Your task to perform on an android device: Show the shopping cart on ebay. Search for energizer triple a on ebay, select the first entry, add it to the cart, then select checkout. Image 0: 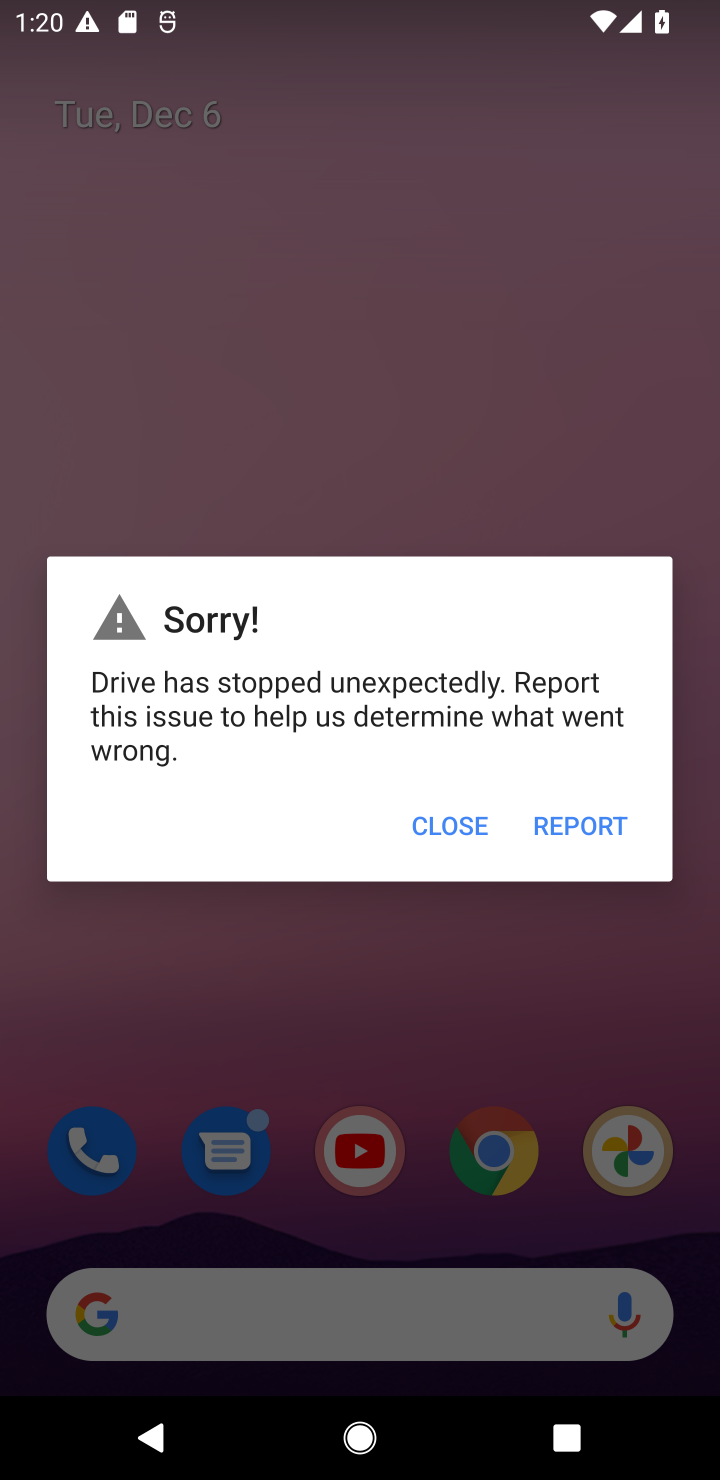
Step 0: press home button
Your task to perform on an android device: Show the shopping cart on ebay. Search for energizer triple a on ebay, select the first entry, add it to the cart, then select checkout. Image 1: 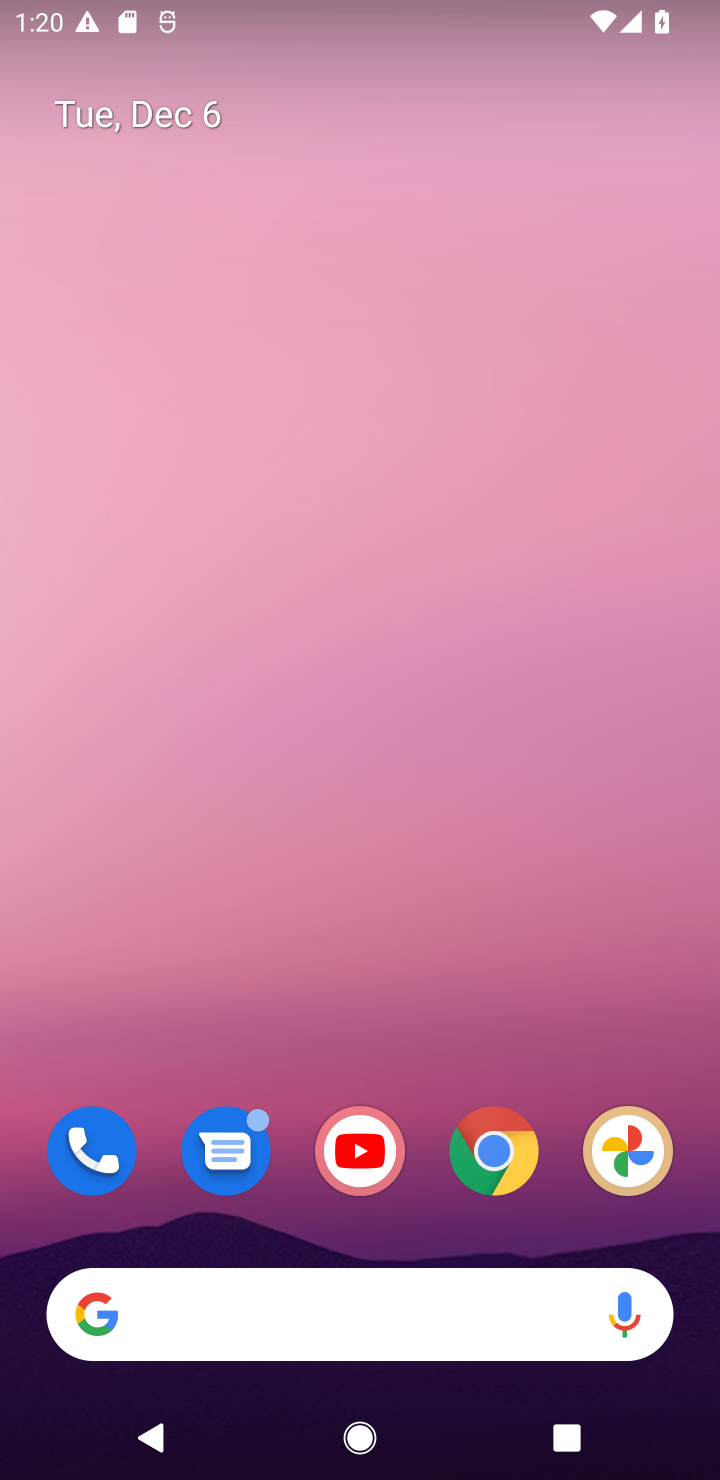
Step 1: click (489, 1155)
Your task to perform on an android device: Show the shopping cart on ebay. Search for energizer triple a on ebay, select the first entry, add it to the cart, then select checkout. Image 2: 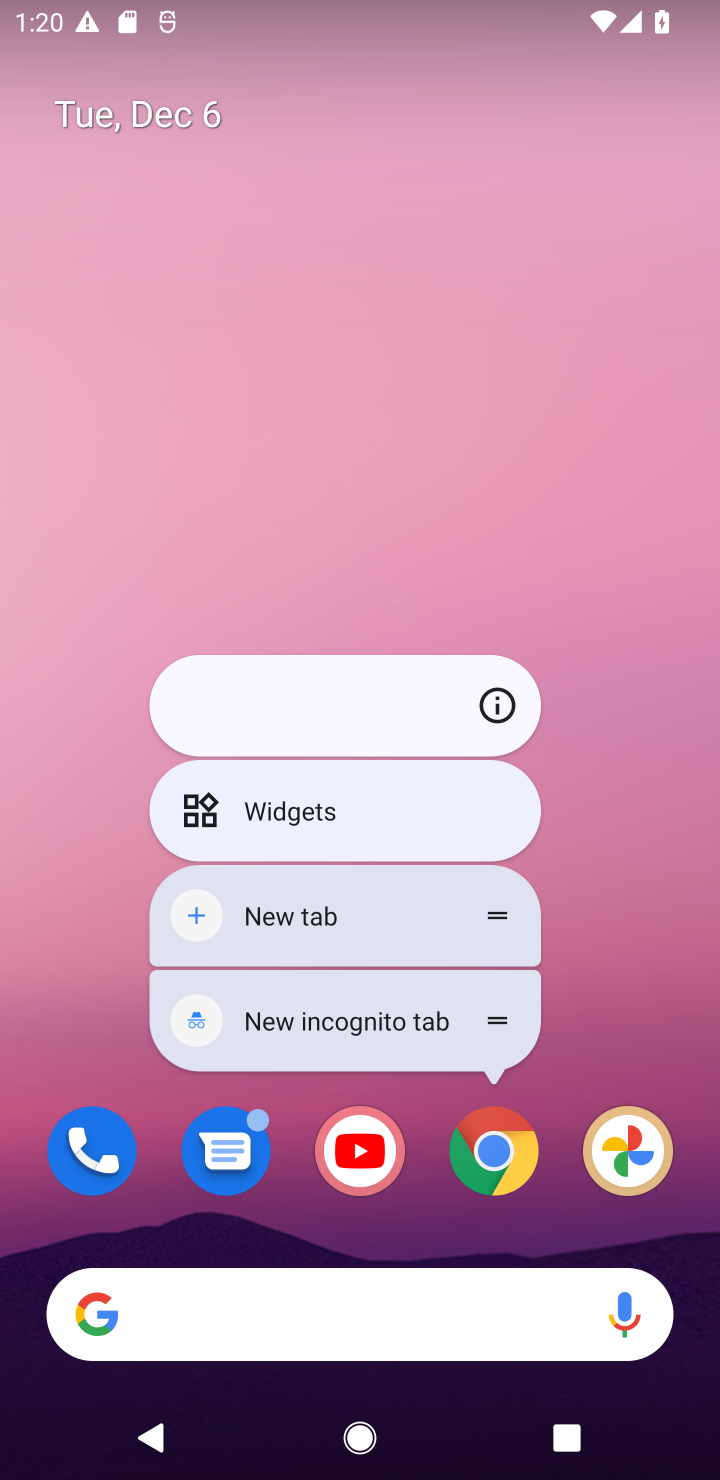
Step 2: click (489, 1155)
Your task to perform on an android device: Show the shopping cart on ebay. Search for energizer triple a on ebay, select the first entry, add it to the cart, then select checkout. Image 3: 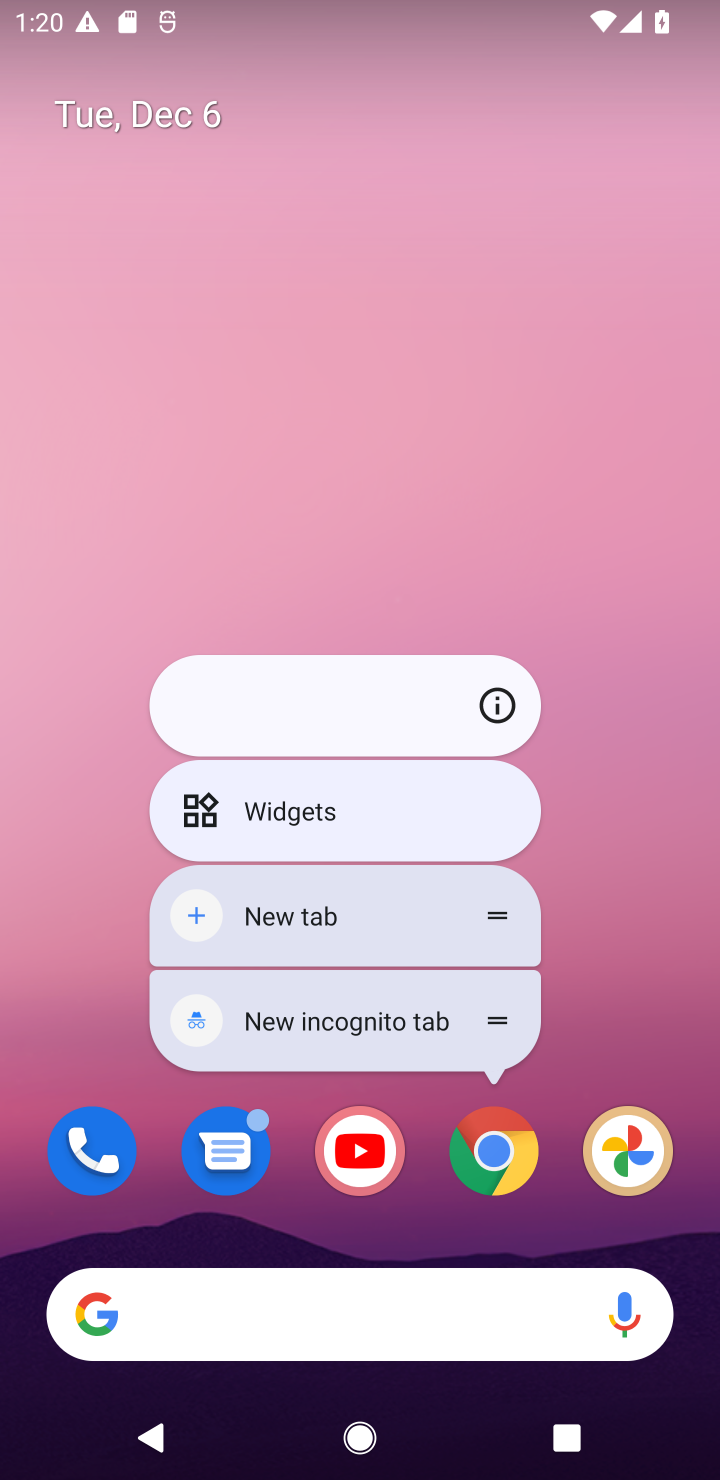
Step 3: click (498, 1161)
Your task to perform on an android device: Show the shopping cart on ebay. Search for energizer triple a on ebay, select the first entry, add it to the cart, then select checkout. Image 4: 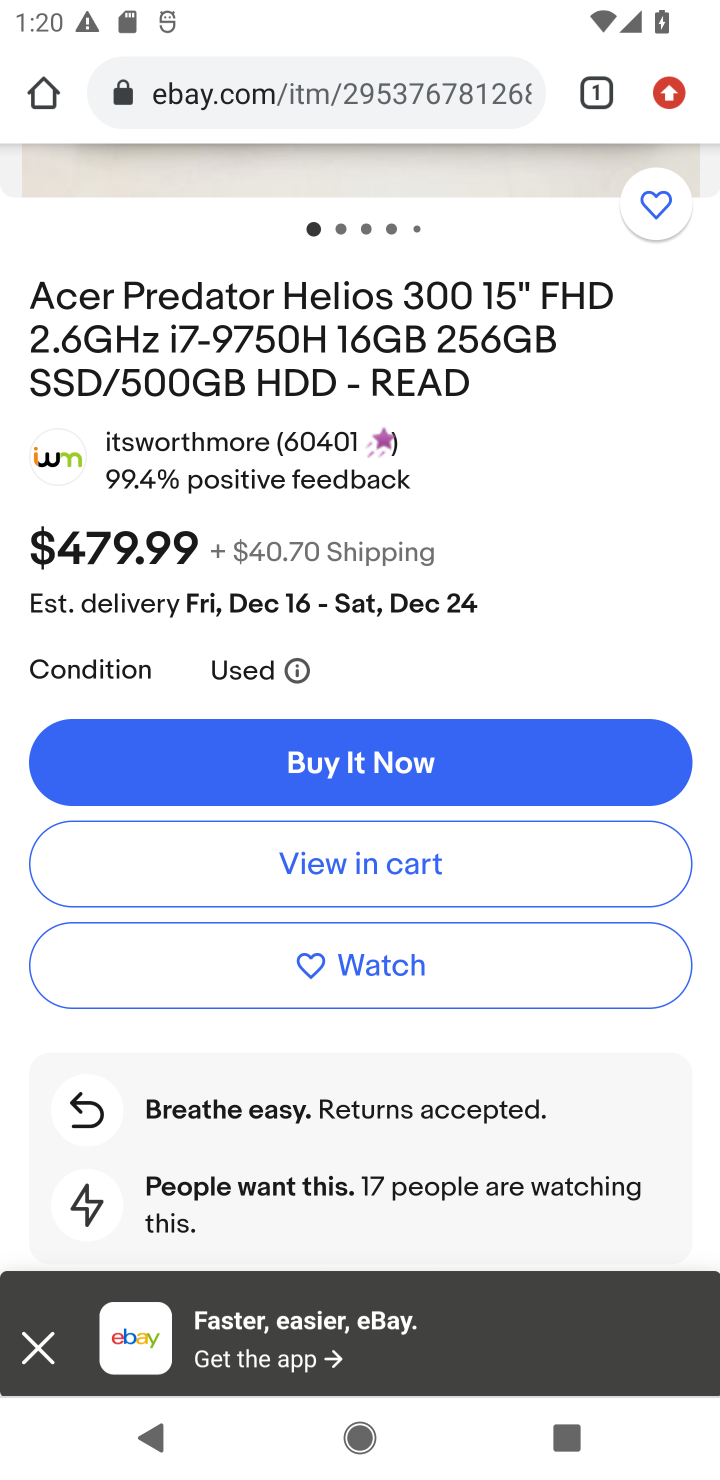
Step 4: drag from (502, 404) to (513, 1180)
Your task to perform on an android device: Show the shopping cart on ebay. Search for energizer triple a on ebay, select the first entry, add it to the cart, then select checkout. Image 5: 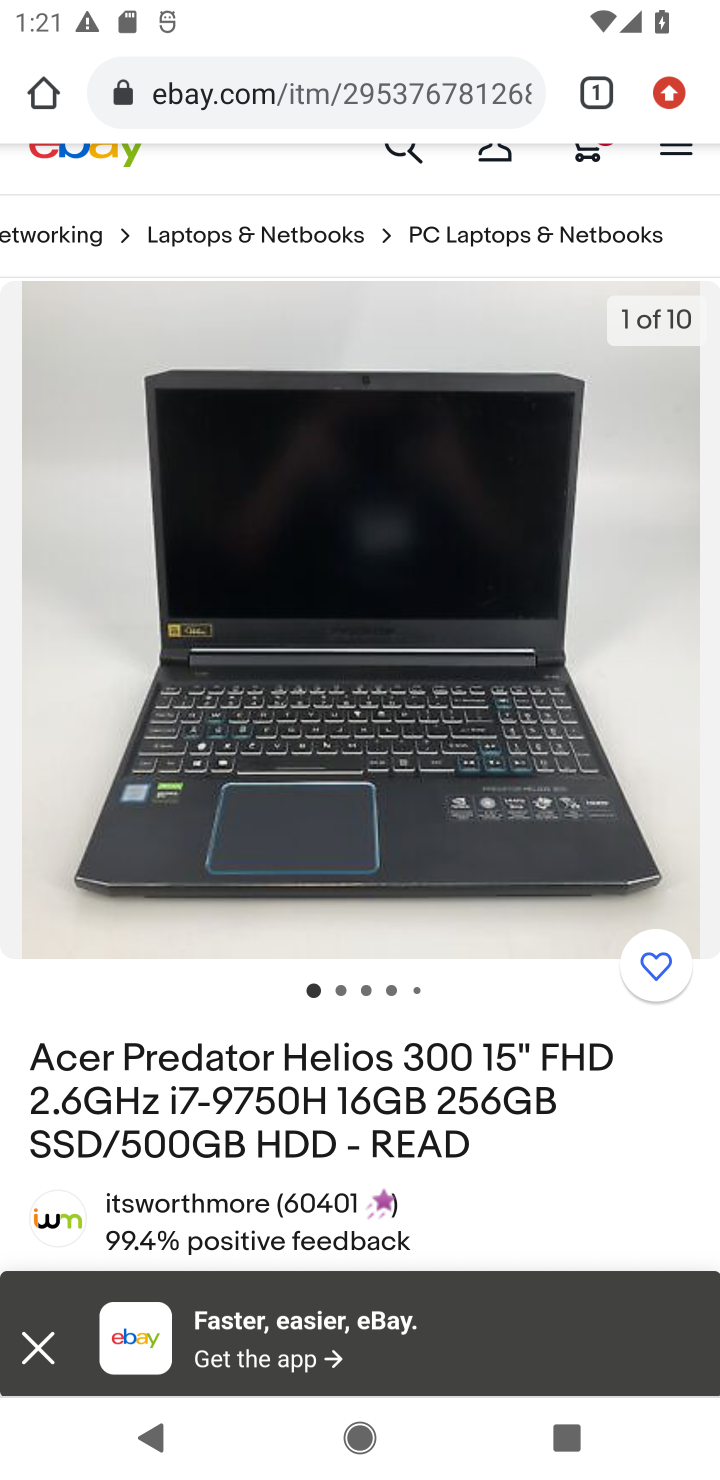
Step 5: drag from (538, 250) to (525, 521)
Your task to perform on an android device: Show the shopping cart on ebay. Search for energizer triple a on ebay, select the first entry, add it to the cart, then select checkout. Image 6: 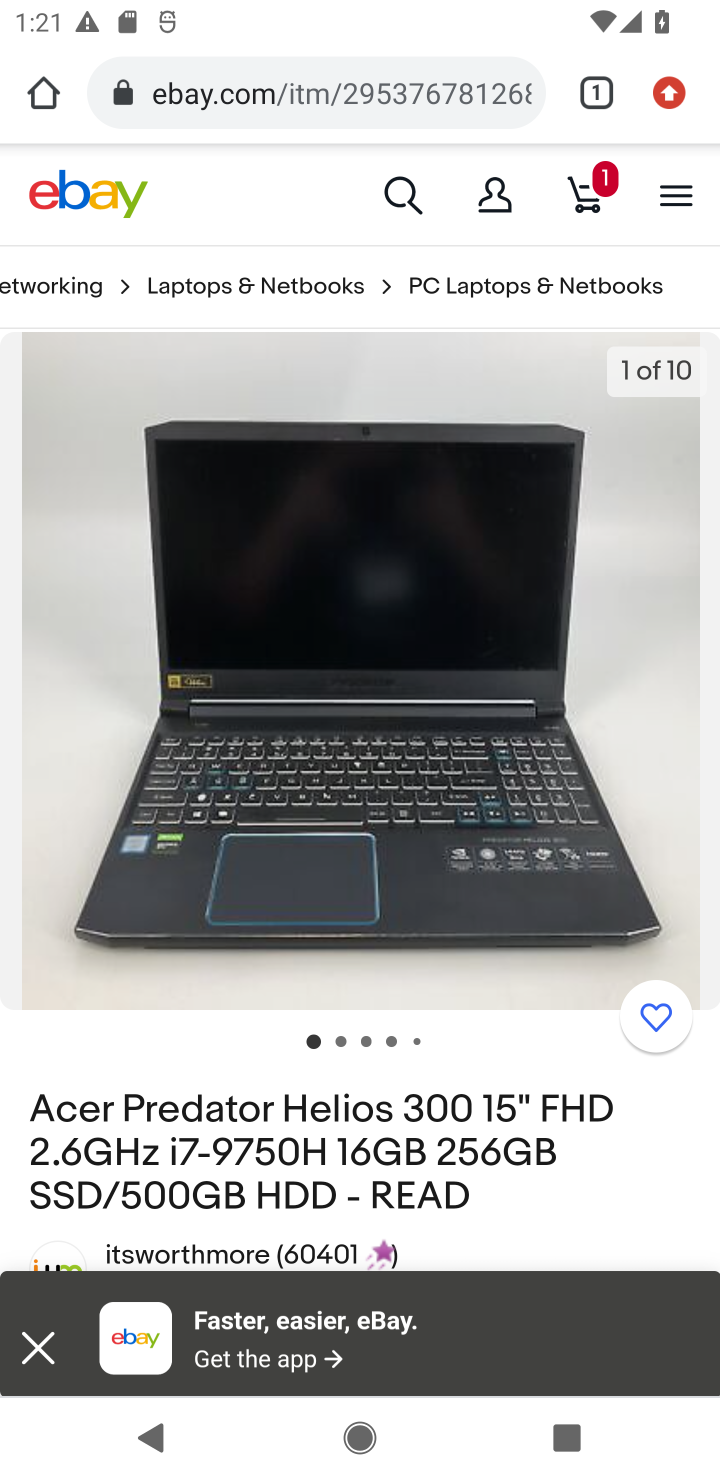
Step 6: click (586, 191)
Your task to perform on an android device: Show the shopping cart on ebay. Search for energizer triple a on ebay, select the first entry, add it to the cart, then select checkout. Image 7: 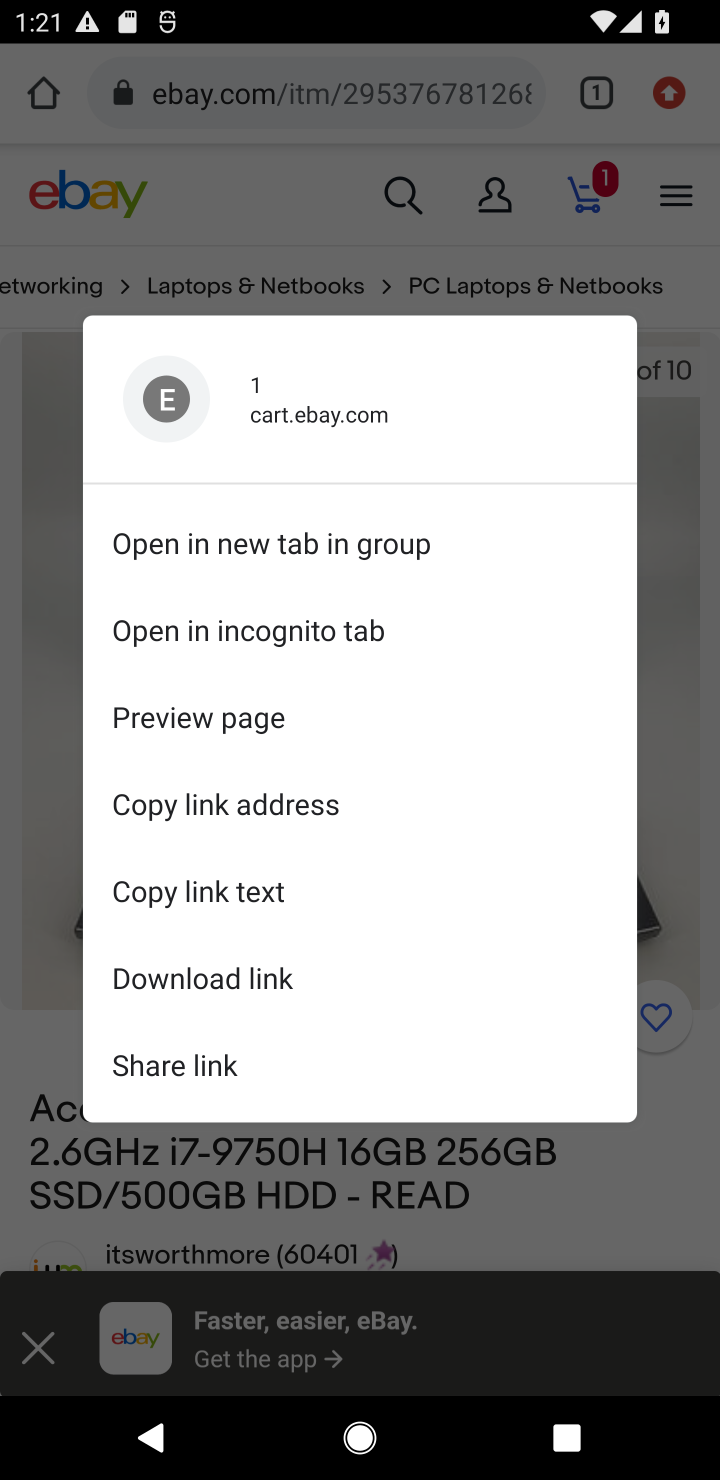
Step 7: click (585, 185)
Your task to perform on an android device: Show the shopping cart on ebay. Search for energizer triple a on ebay, select the first entry, add it to the cart, then select checkout. Image 8: 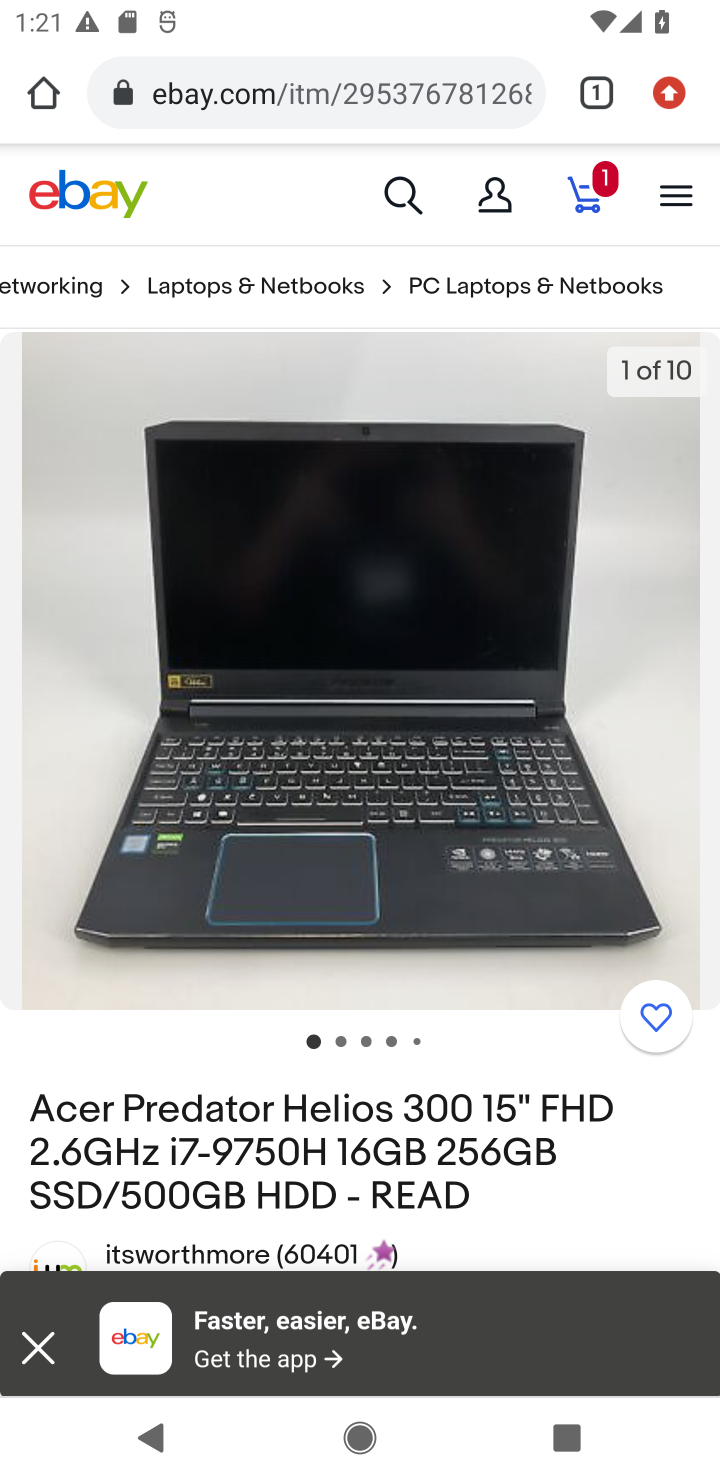
Step 8: click (580, 198)
Your task to perform on an android device: Show the shopping cart on ebay. Search for energizer triple a on ebay, select the first entry, add it to the cart, then select checkout. Image 9: 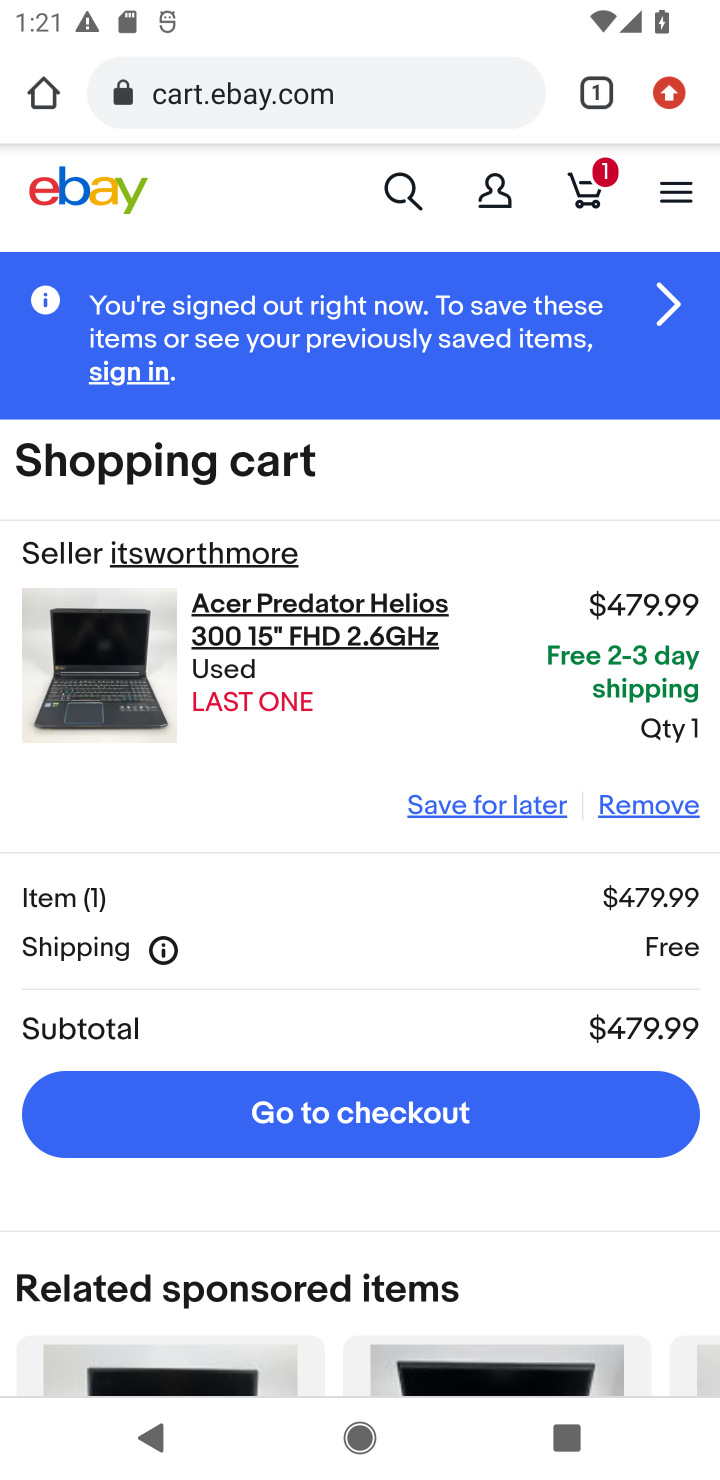
Step 9: click (406, 199)
Your task to perform on an android device: Show the shopping cart on ebay. Search for energizer triple a on ebay, select the first entry, add it to the cart, then select checkout. Image 10: 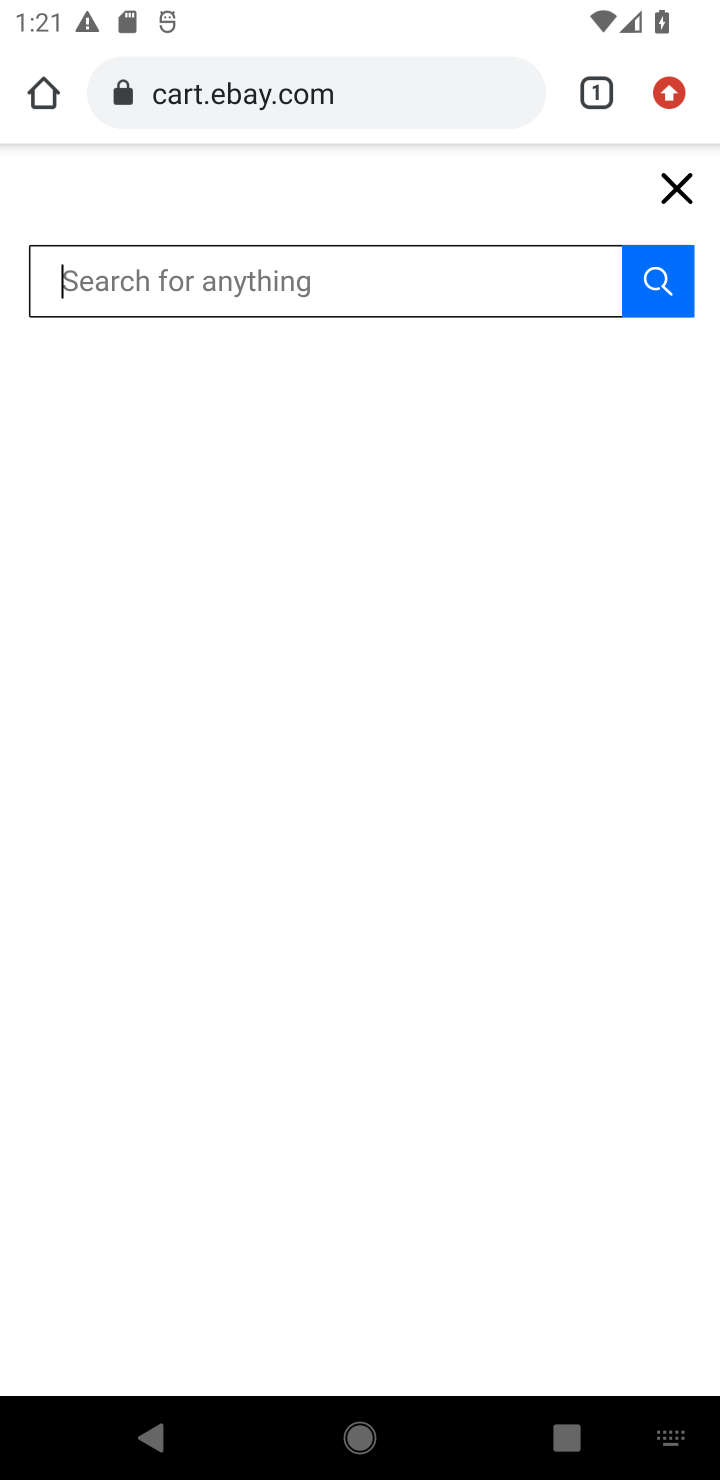
Step 10: type "energizer triple a"
Your task to perform on an android device: Show the shopping cart on ebay. Search for energizer triple a on ebay, select the first entry, add it to the cart, then select checkout. Image 11: 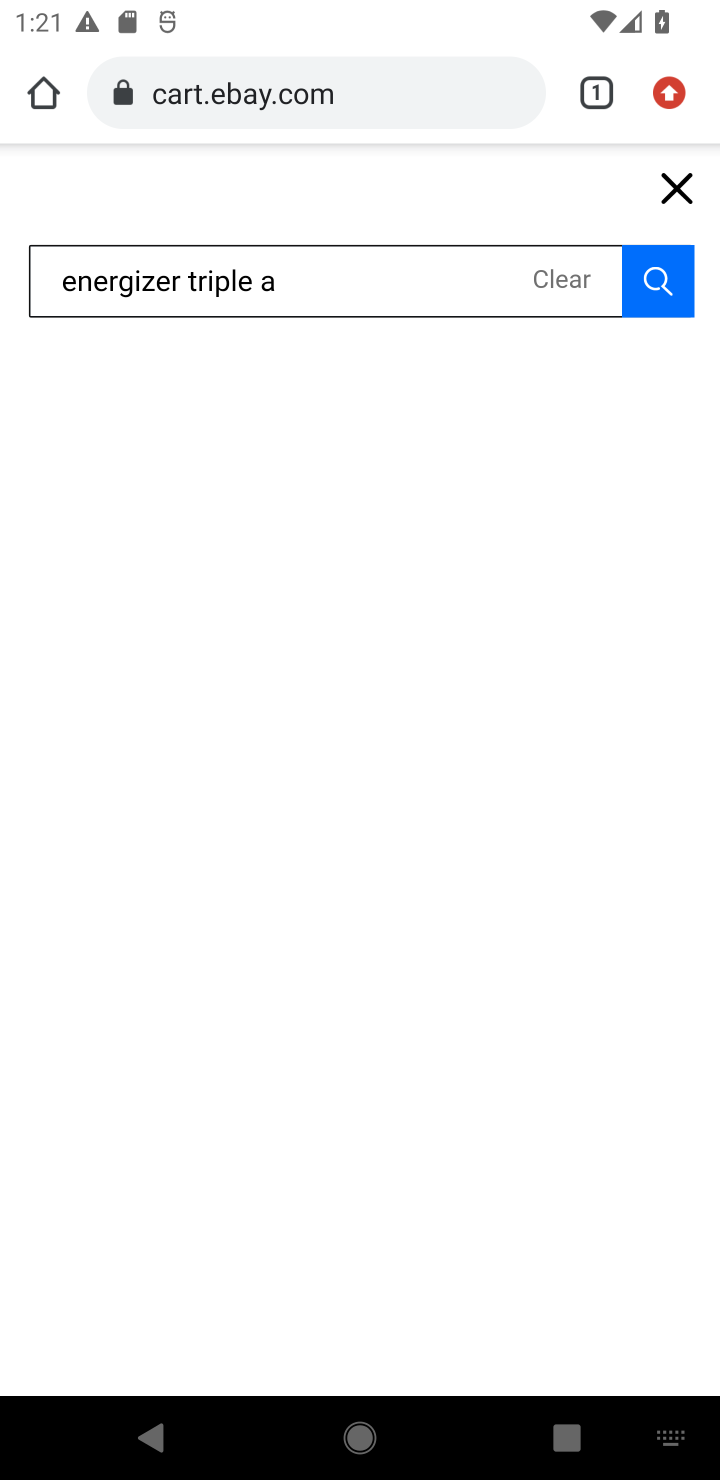
Step 11: click (661, 293)
Your task to perform on an android device: Show the shopping cart on ebay. Search for energizer triple a on ebay, select the first entry, add it to the cart, then select checkout. Image 12: 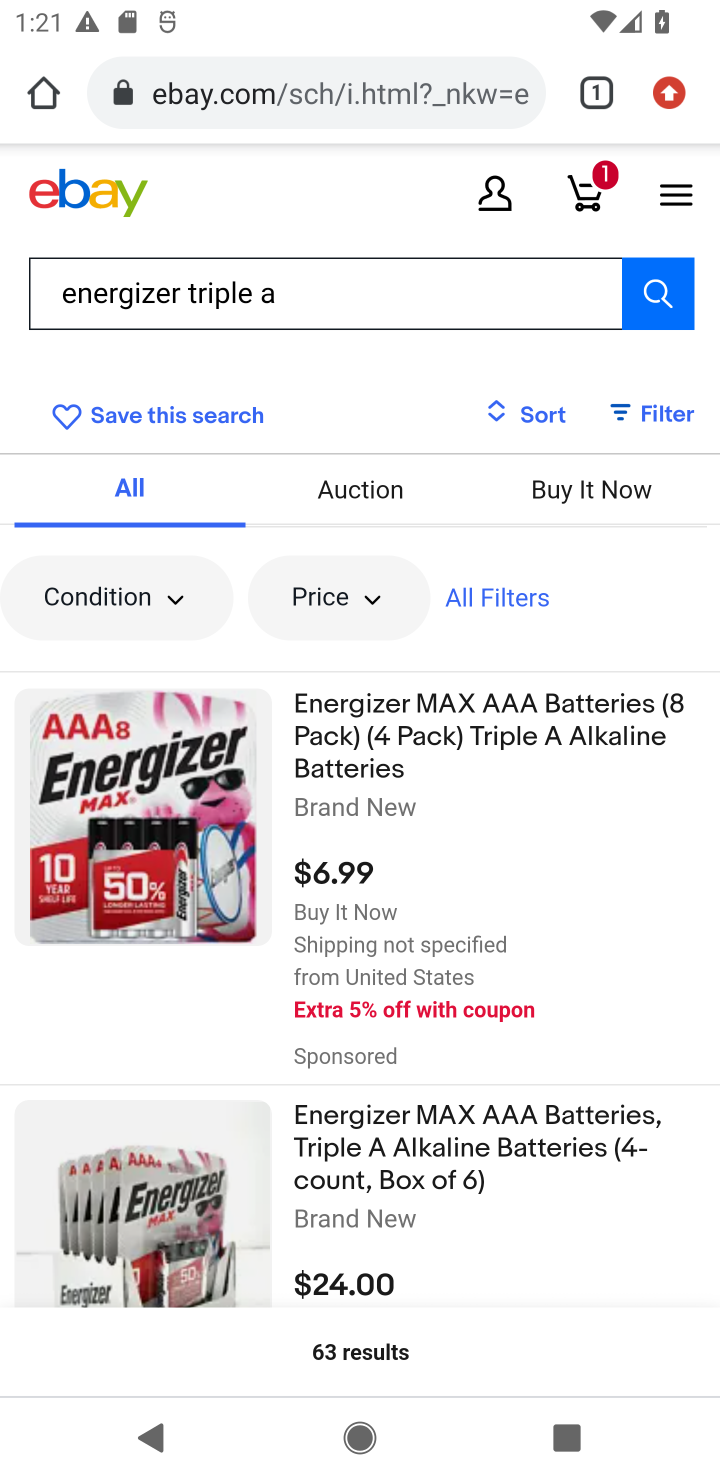
Step 12: click (307, 775)
Your task to perform on an android device: Show the shopping cart on ebay. Search for energizer triple a on ebay, select the first entry, add it to the cart, then select checkout. Image 13: 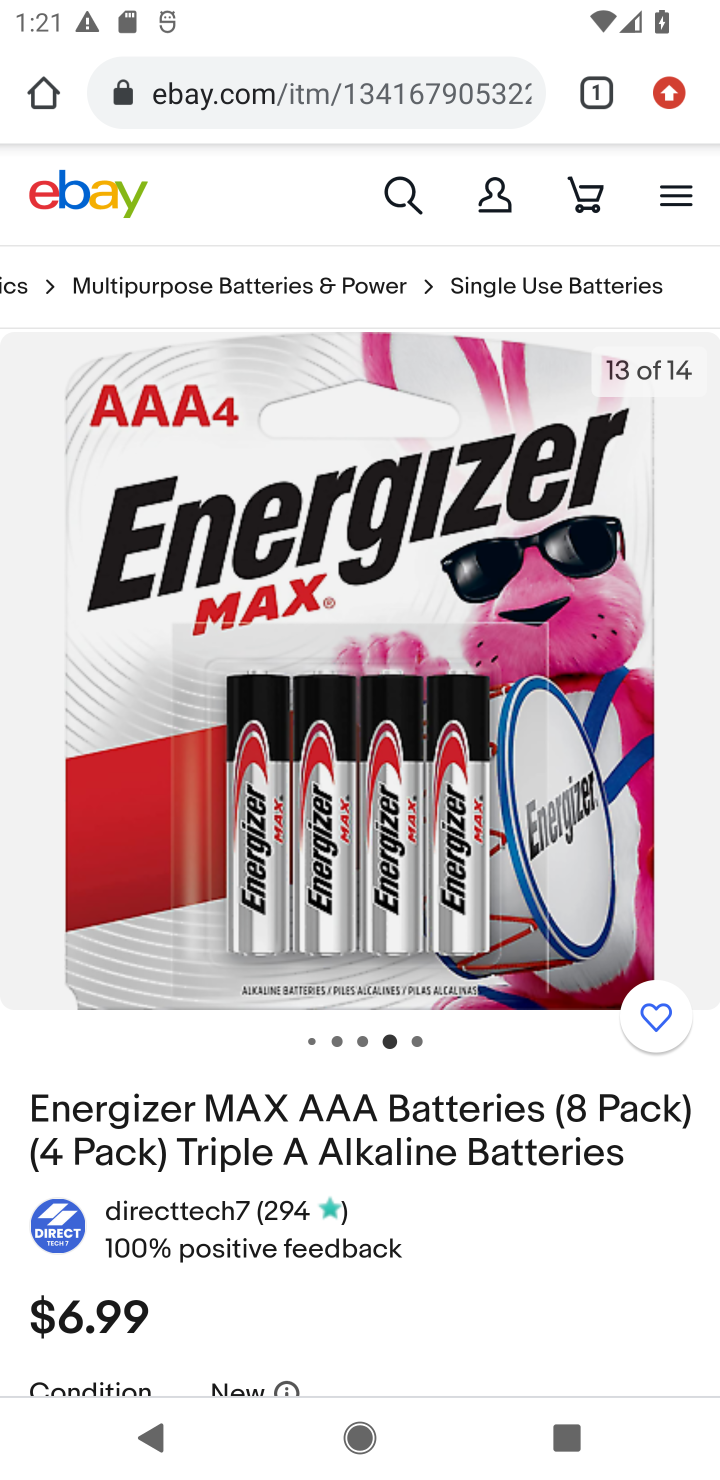
Step 13: drag from (416, 734) to (389, 475)
Your task to perform on an android device: Show the shopping cart on ebay. Search for energizer triple a on ebay, select the first entry, add it to the cart, then select checkout. Image 14: 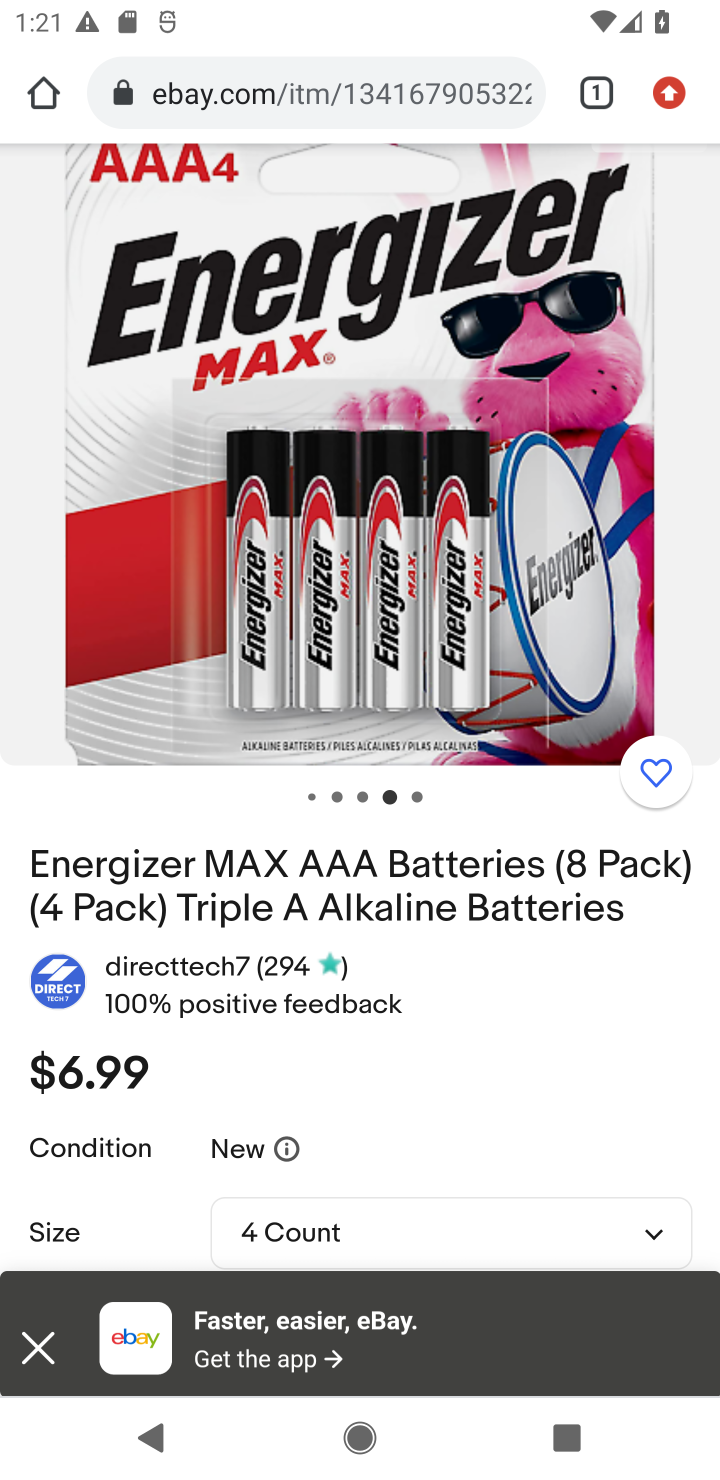
Step 14: drag from (474, 1113) to (438, 506)
Your task to perform on an android device: Show the shopping cart on ebay. Search for energizer triple a on ebay, select the first entry, add it to the cart, then select checkout. Image 15: 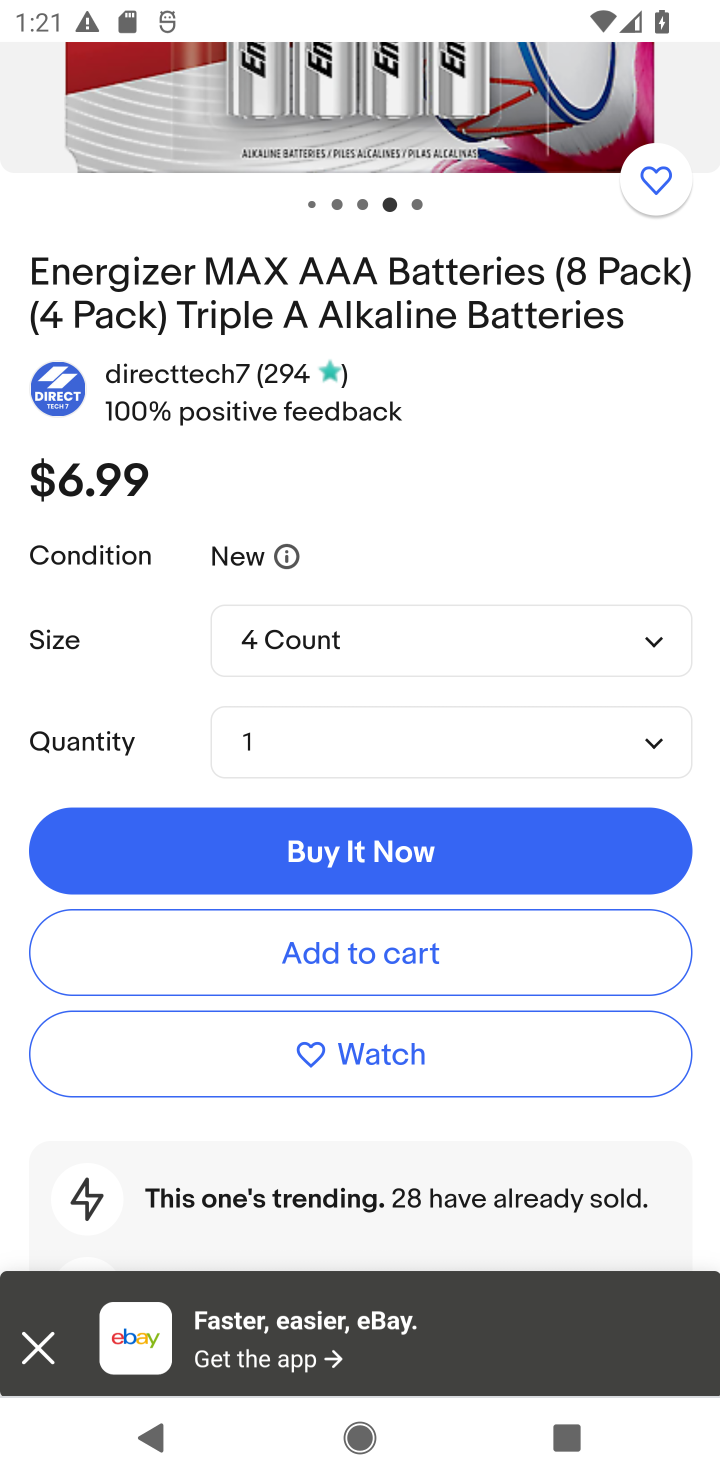
Step 15: click (337, 948)
Your task to perform on an android device: Show the shopping cart on ebay. Search for energizer triple a on ebay, select the first entry, add it to the cart, then select checkout. Image 16: 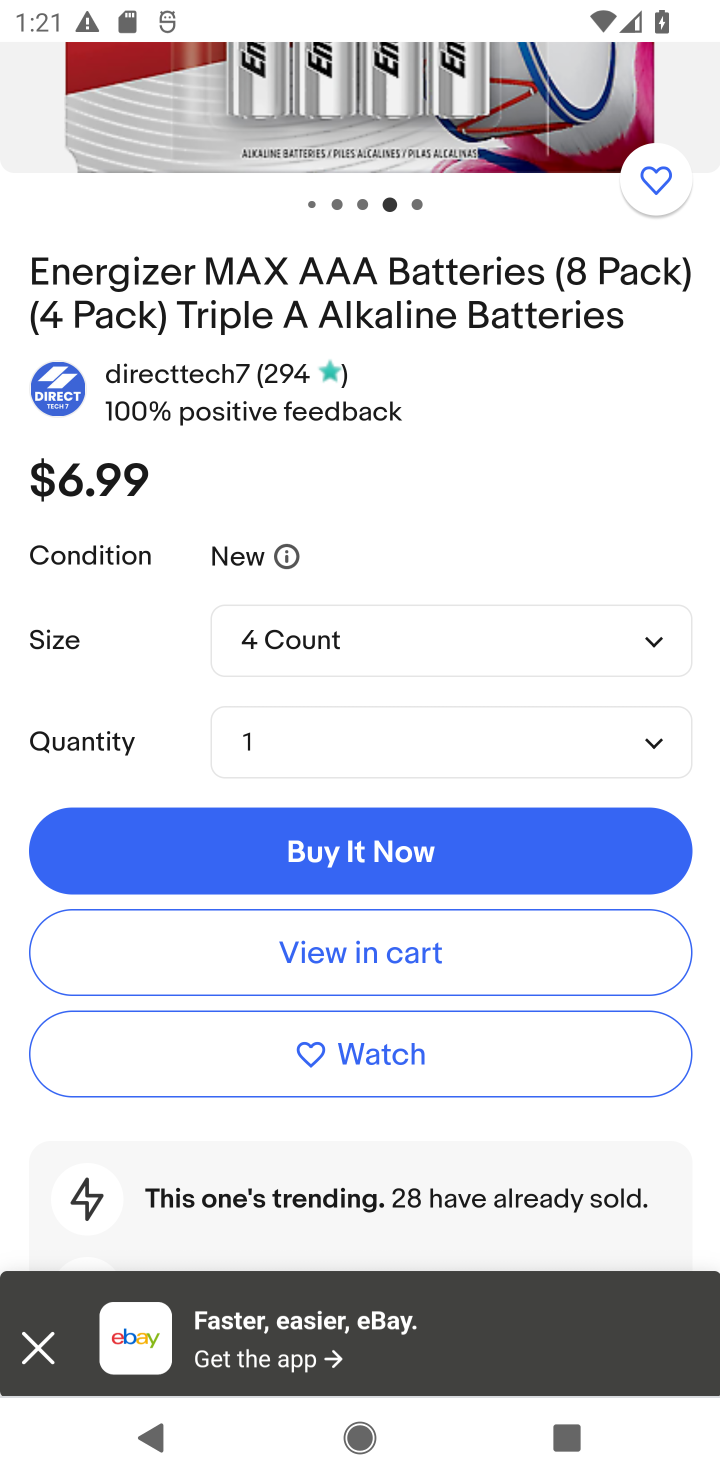
Step 16: click (337, 948)
Your task to perform on an android device: Show the shopping cart on ebay. Search for energizer triple a on ebay, select the first entry, add it to the cart, then select checkout. Image 17: 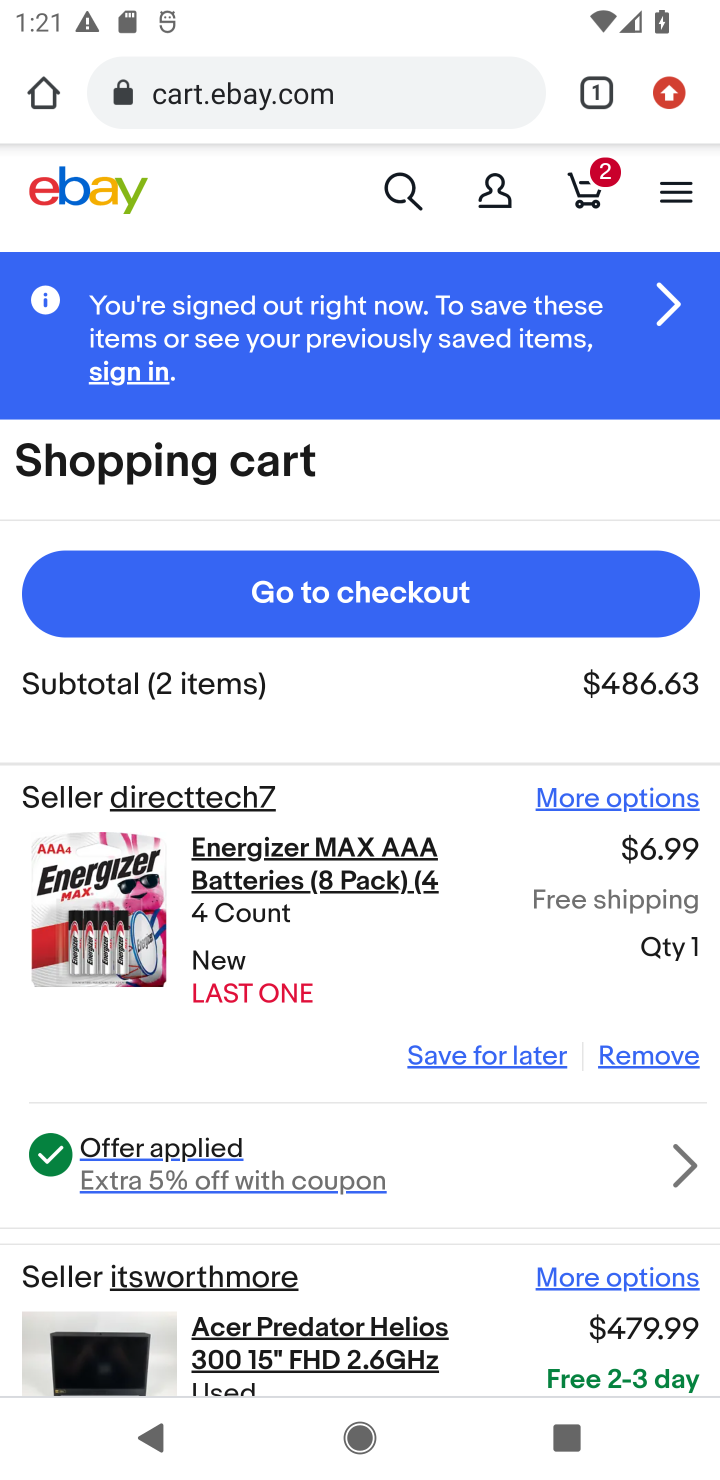
Step 17: click (278, 601)
Your task to perform on an android device: Show the shopping cart on ebay. Search for energizer triple a on ebay, select the first entry, add it to the cart, then select checkout. Image 18: 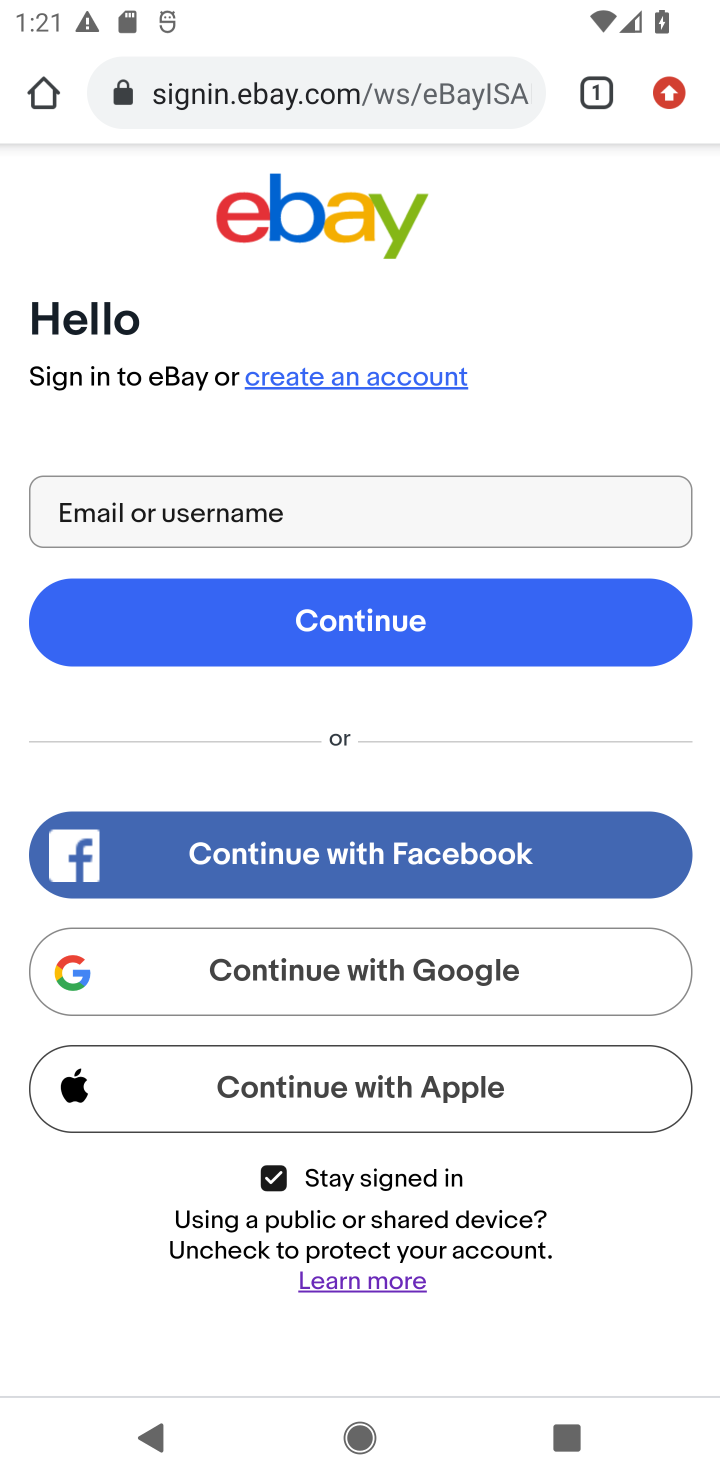
Step 18: task complete